Your task to perform on an android device: Search for flights from Tokyo to NYC Image 0: 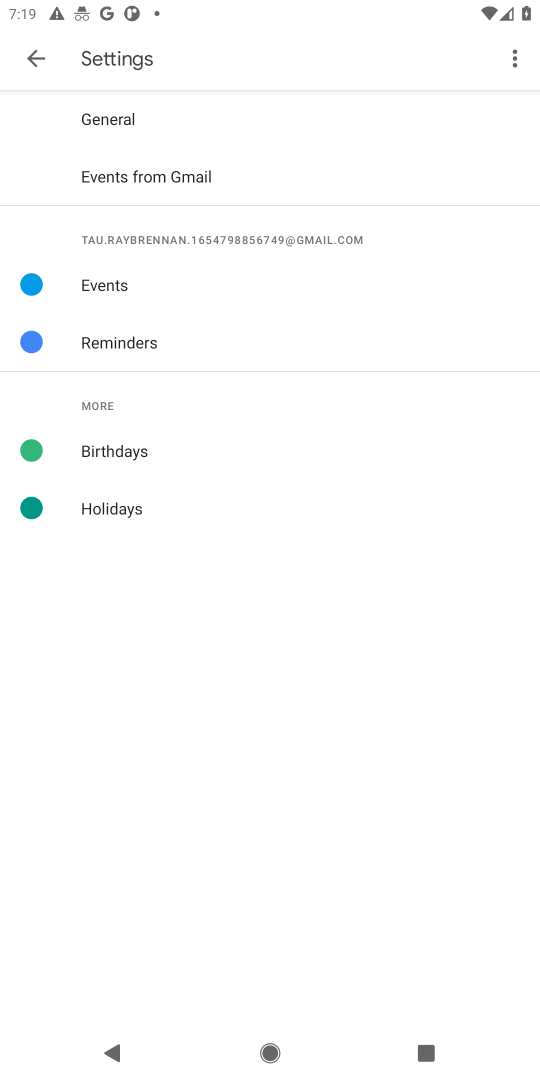
Step 0: press home button
Your task to perform on an android device: Search for flights from Tokyo to NYC Image 1: 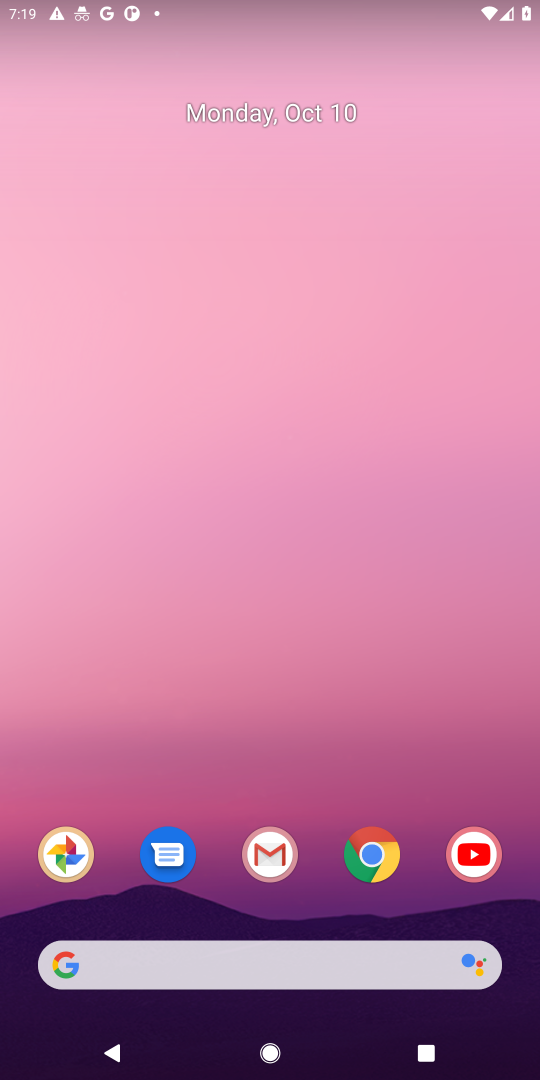
Step 1: click (382, 862)
Your task to perform on an android device: Search for flights from Tokyo to NYC Image 2: 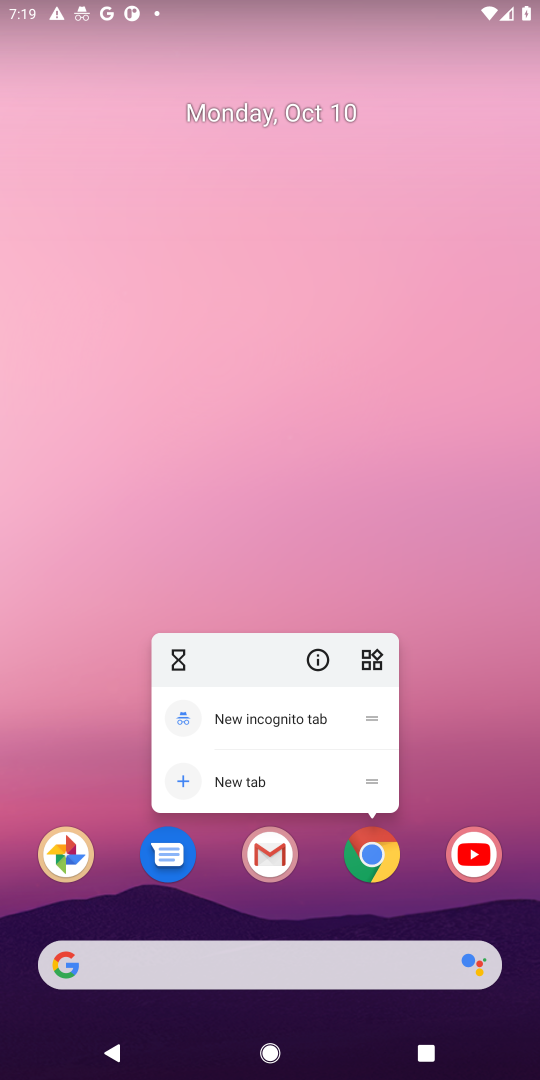
Step 2: click (368, 856)
Your task to perform on an android device: Search for flights from Tokyo to NYC Image 3: 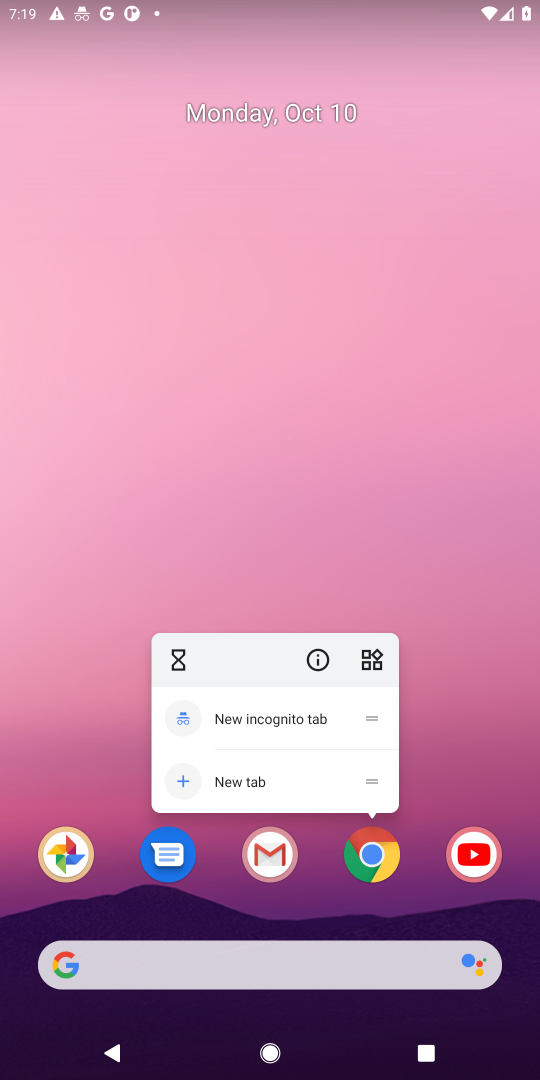
Step 3: click (368, 856)
Your task to perform on an android device: Search for flights from Tokyo to NYC Image 4: 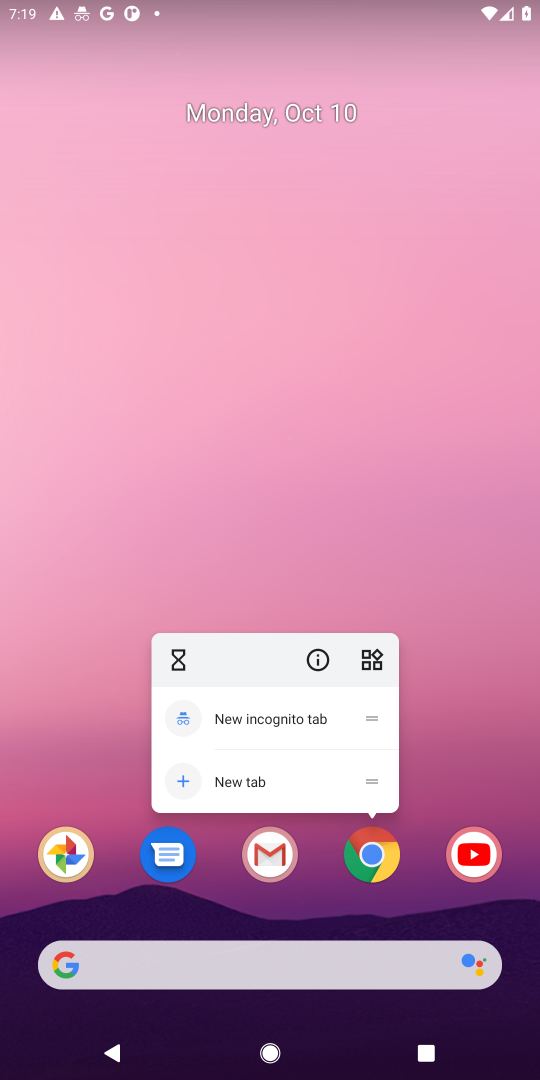
Step 4: click (366, 846)
Your task to perform on an android device: Search for flights from Tokyo to NYC Image 5: 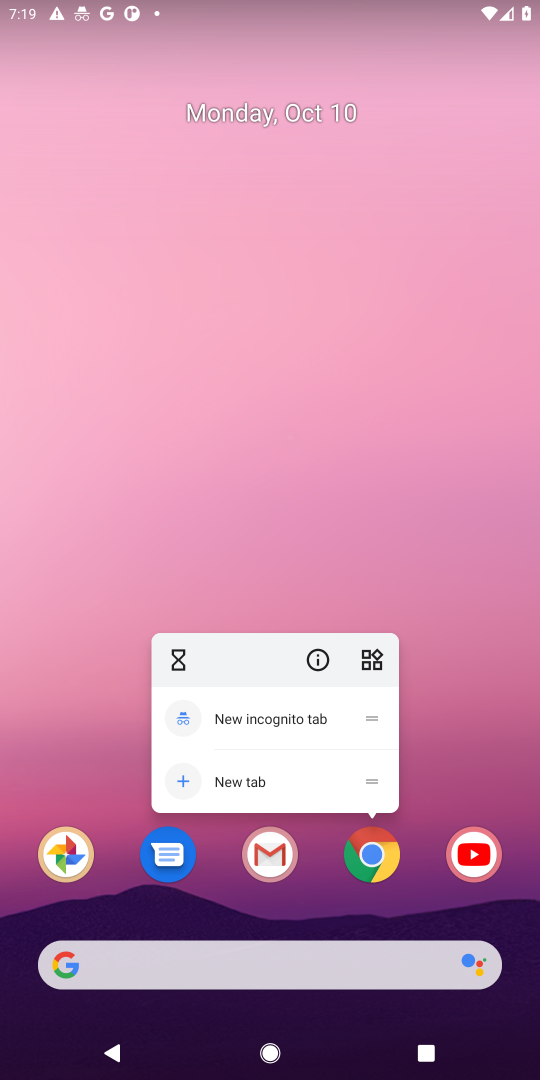
Step 5: click (371, 862)
Your task to perform on an android device: Search for flights from Tokyo to NYC Image 6: 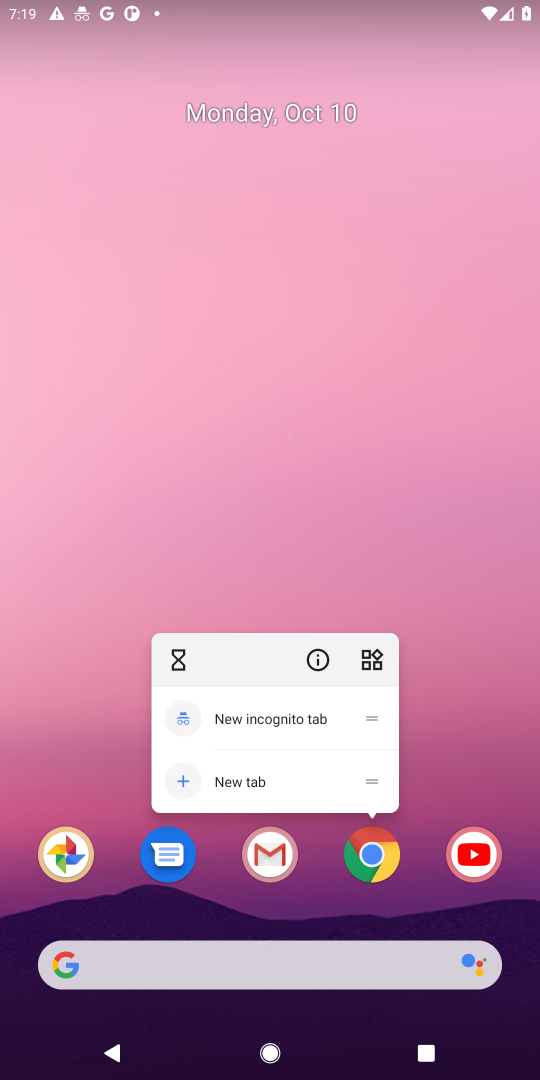
Step 6: click (377, 857)
Your task to perform on an android device: Search for flights from Tokyo to NYC Image 7: 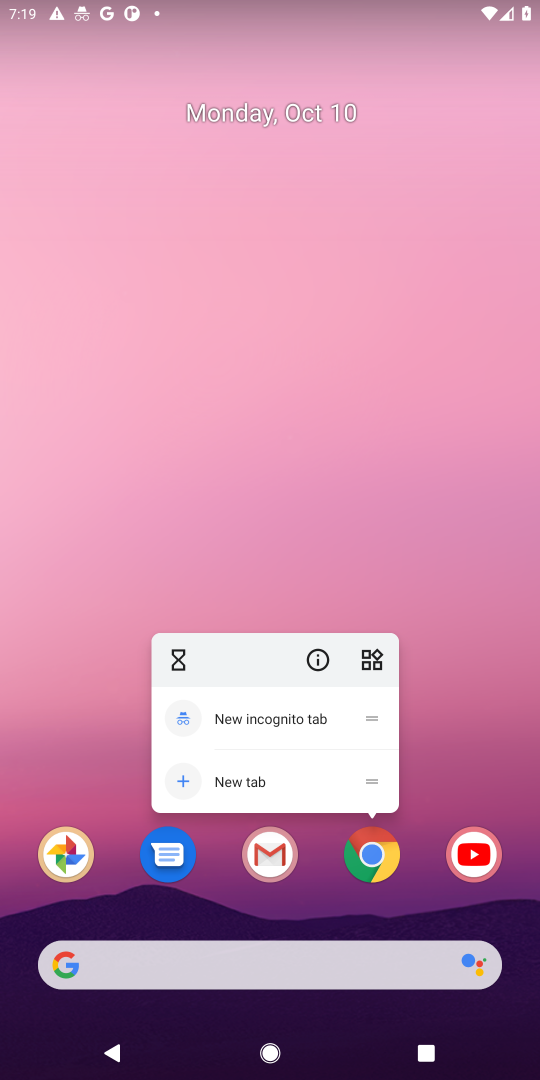
Step 7: click (377, 857)
Your task to perform on an android device: Search for flights from Tokyo to NYC Image 8: 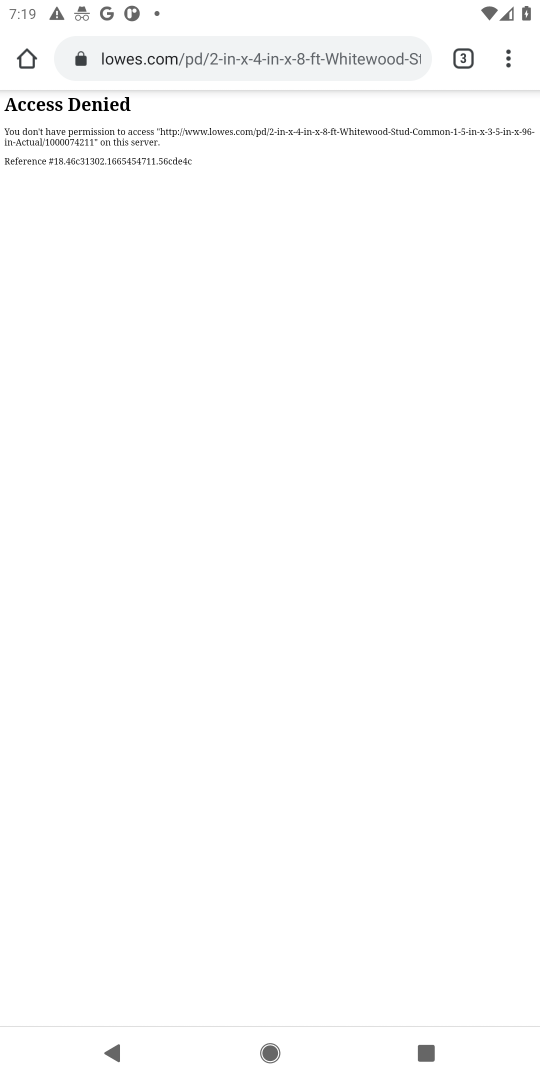
Step 8: drag from (505, 57) to (305, 113)
Your task to perform on an android device: Search for flights from Tokyo to NYC Image 9: 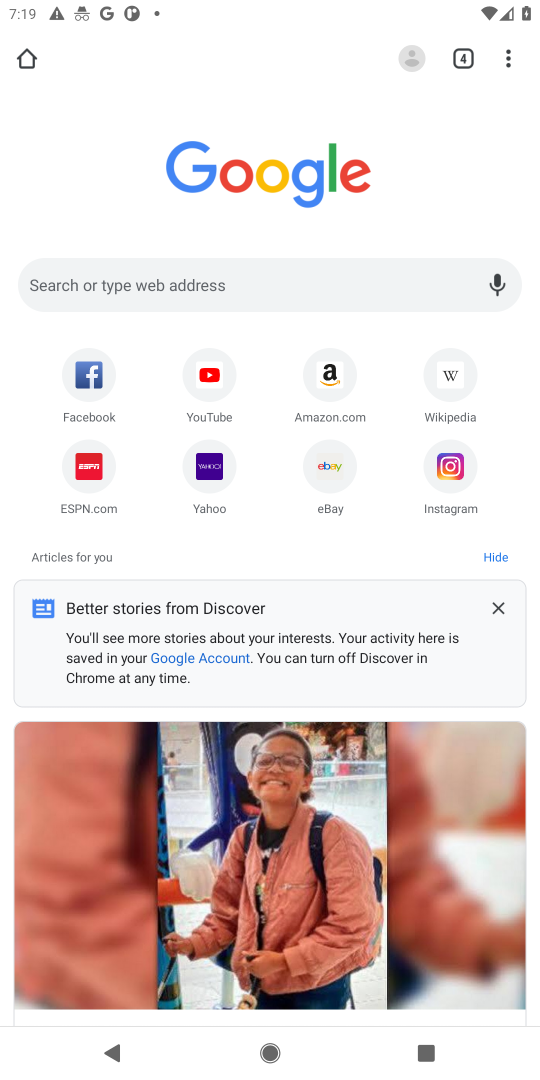
Step 9: click (121, 279)
Your task to perform on an android device: Search for flights from Tokyo to NYC Image 10: 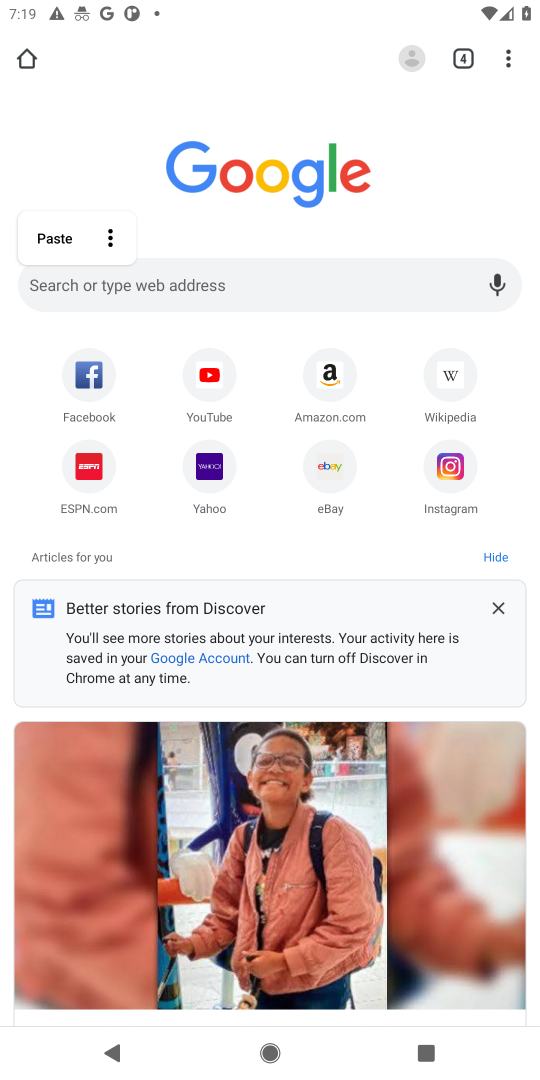
Step 10: click (244, 277)
Your task to perform on an android device: Search for flights from Tokyo to NYC Image 11: 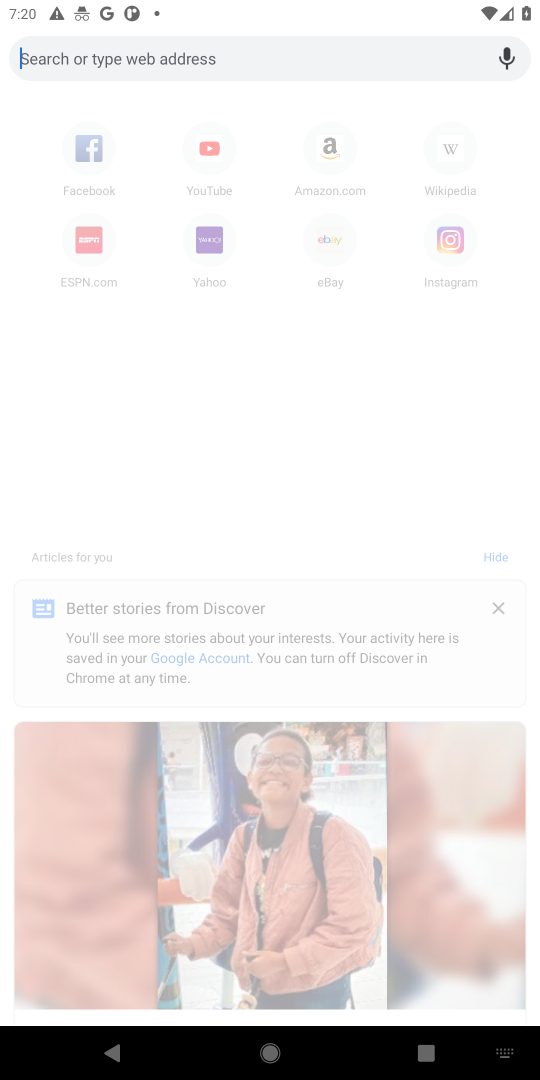
Step 11: type "flights from Tokyo to NYC"
Your task to perform on an android device: Search for flights from Tokyo to NYC Image 12: 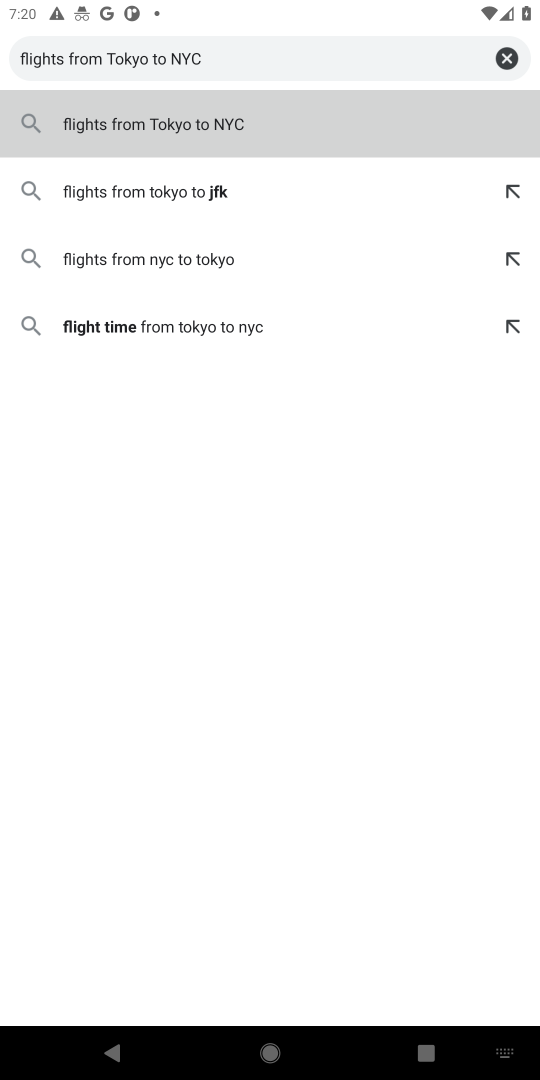
Step 12: click (183, 119)
Your task to perform on an android device: Search for flights from Tokyo to NYC Image 13: 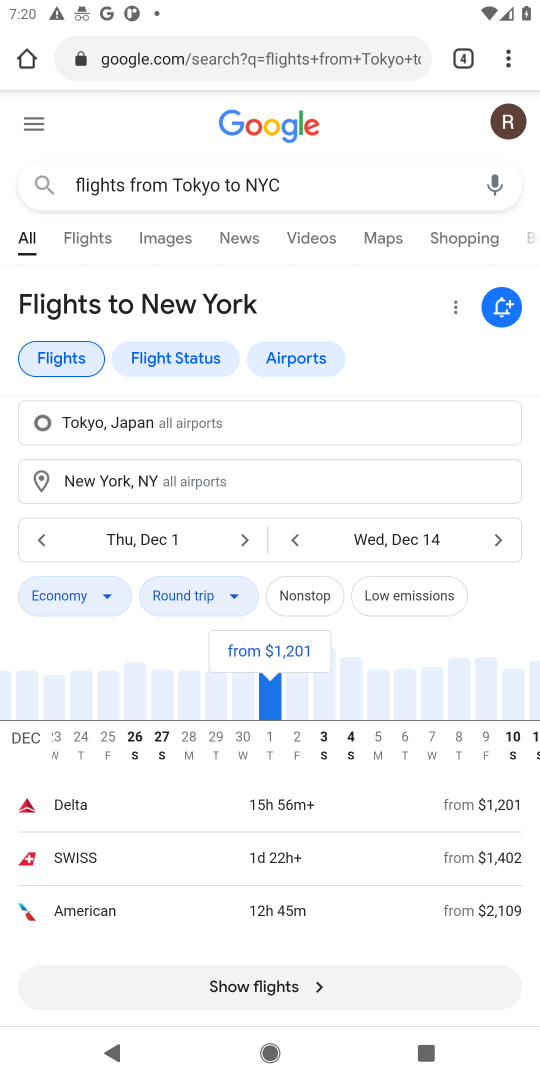
Step 13: drag from (191, 925) to (461, 349)
Your task to perform on an android device: Search for flights from Tokyo to NYC Image 14: 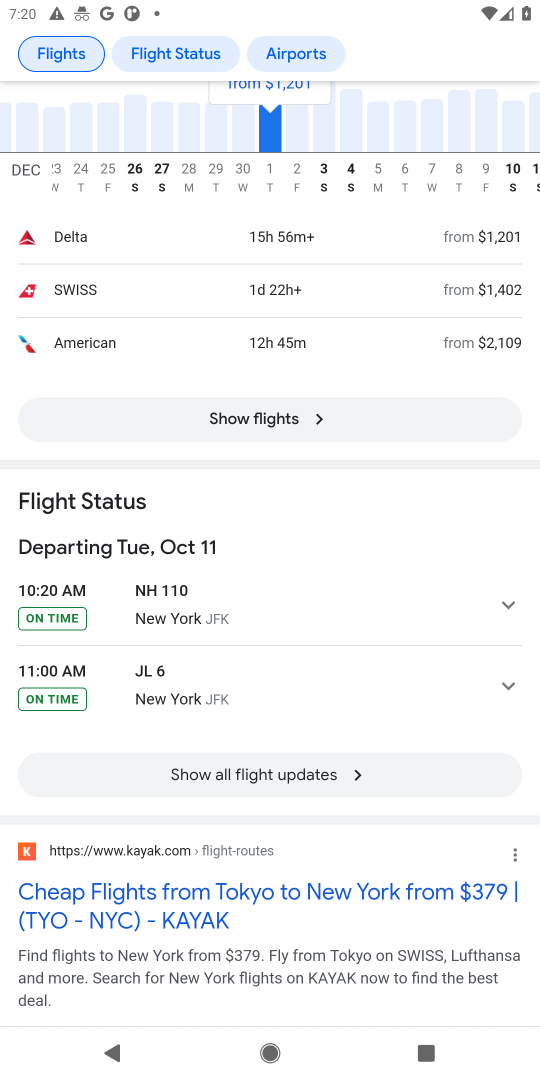
Step 14: click (298, 774)
Your task to perform on an android device: Search for flights from Tokyo to NYC Image 15: 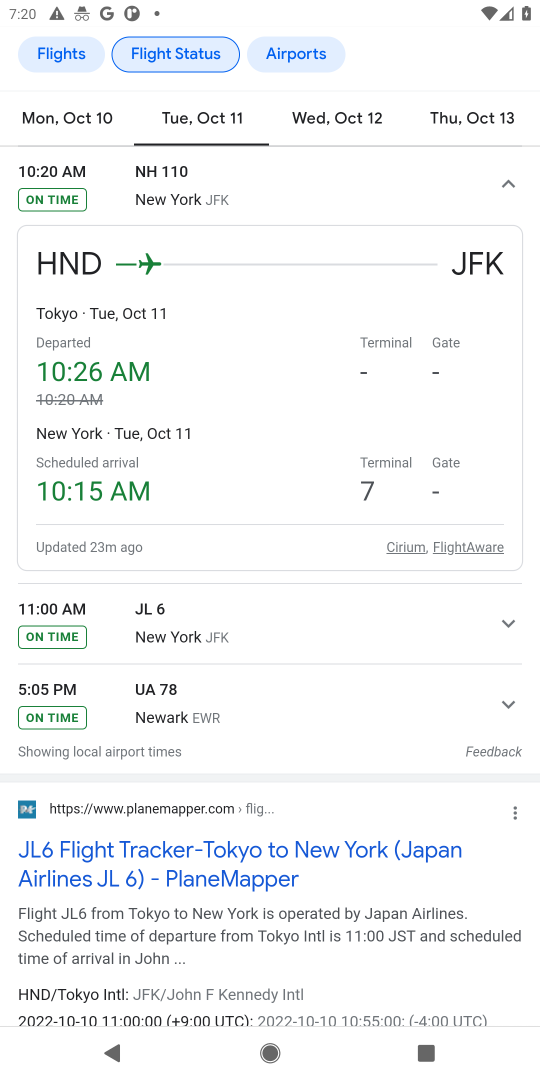
Step 15: task complete